Your task to perform on an android device: Show me recent news Image 0: 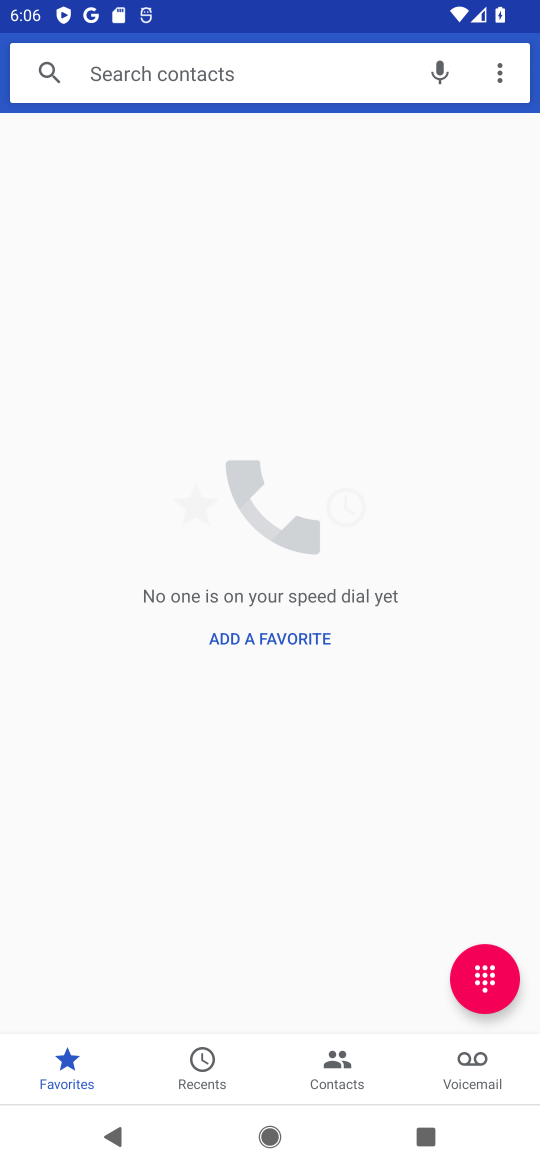
Step 0: press home button
Your task to perform on an android device: Show me recent news Image 1: 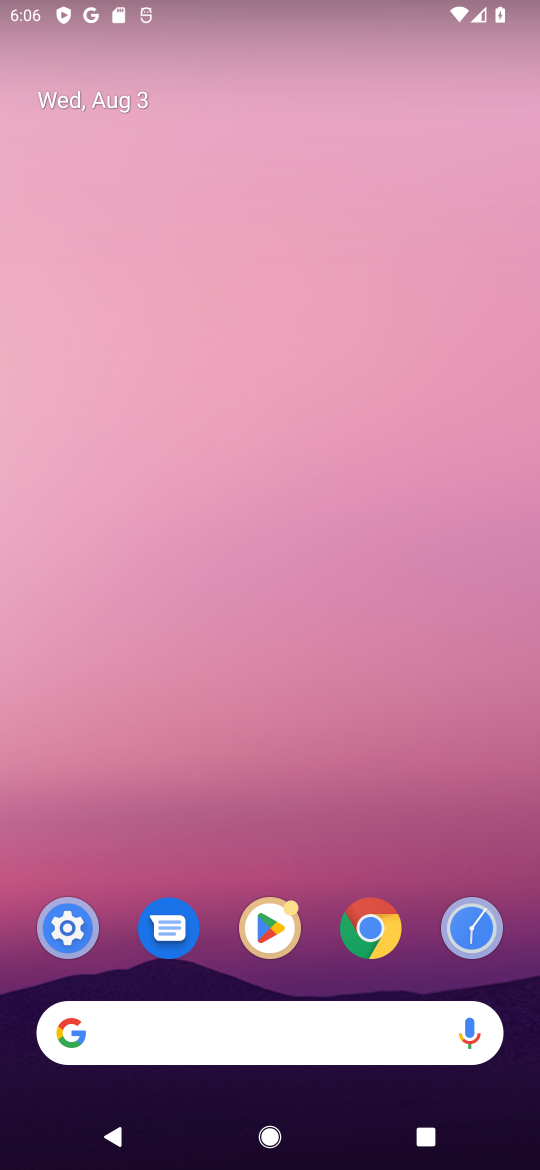
Step 1: task complete